Your task to perform on an android device: turn off location history Image 0: 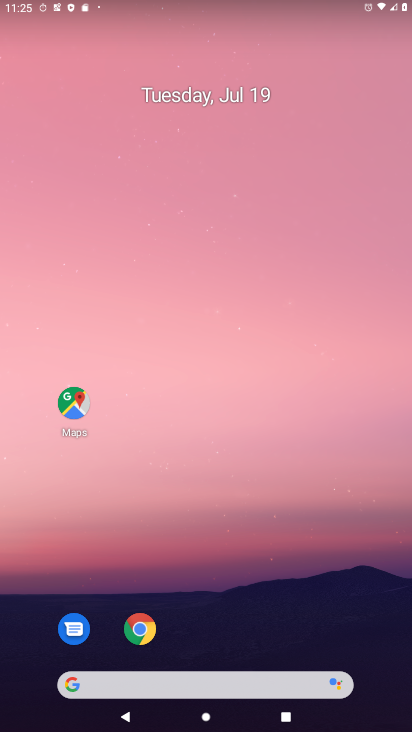
Step 0: drag from (199, 603) to (80, 143)
Your task to perform on an android device: turn off location history Image 1: 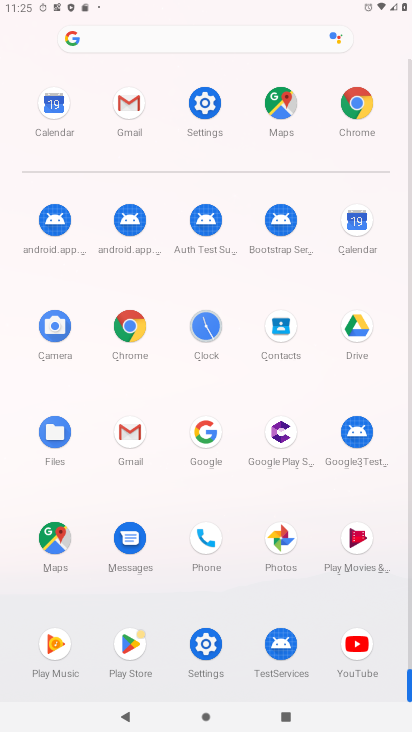
Step 1: click (49, 536)
Your task to perform on an android device: turn off location history Image 2: 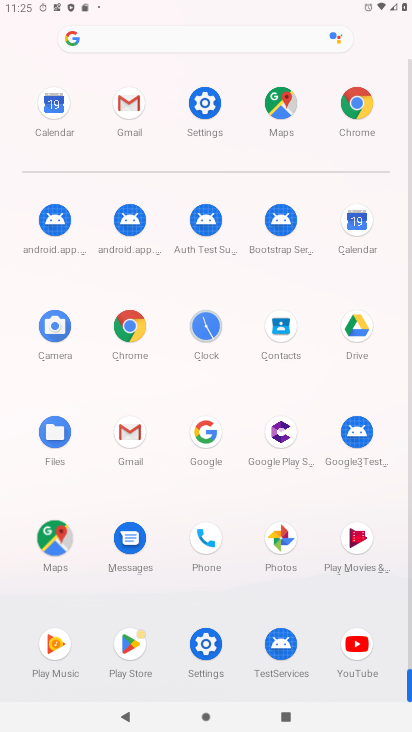
Step 2: click (51, 535)
Your task to perform on an android device: turn off location history Image 3: 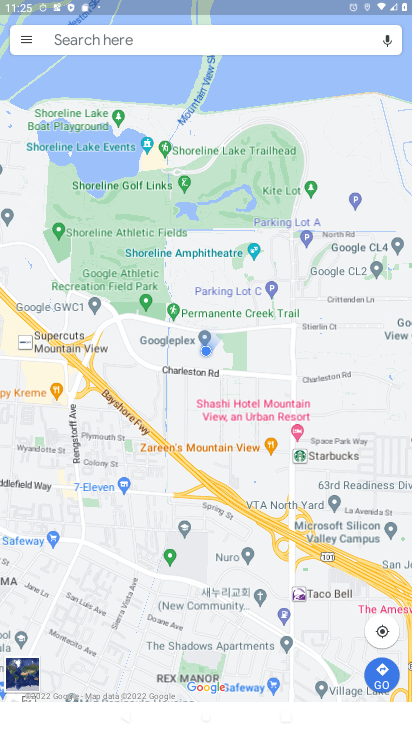
Step 3: press back button
Your task to perform on an android device: turn off location history Image 4: 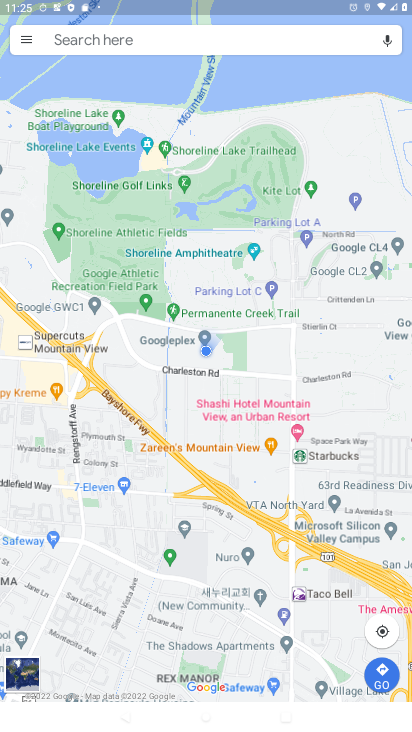
Step 4: press back button
Your task to perform on an android device: turn off location history Image 5: 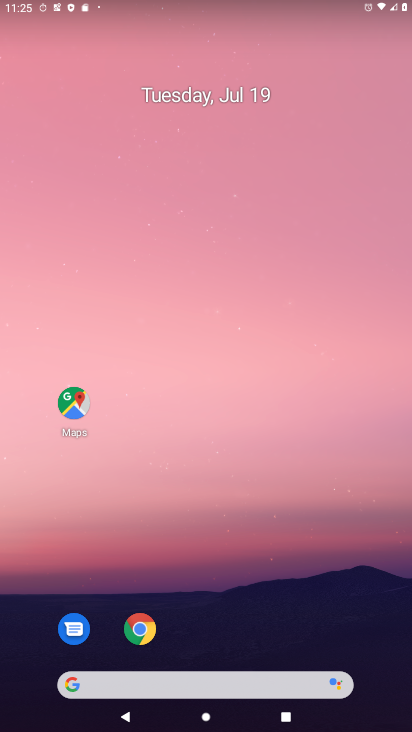
Step 5: drag from (236, 627) to (201, 125)
Your task to perform on an android device: turn off location history Image 6: 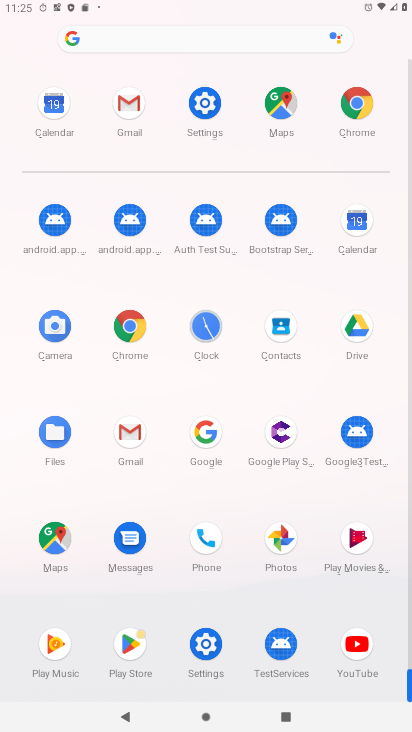
Step 6: click (183, 95)
Your task to perform on an android device: turn off location history Image 7: 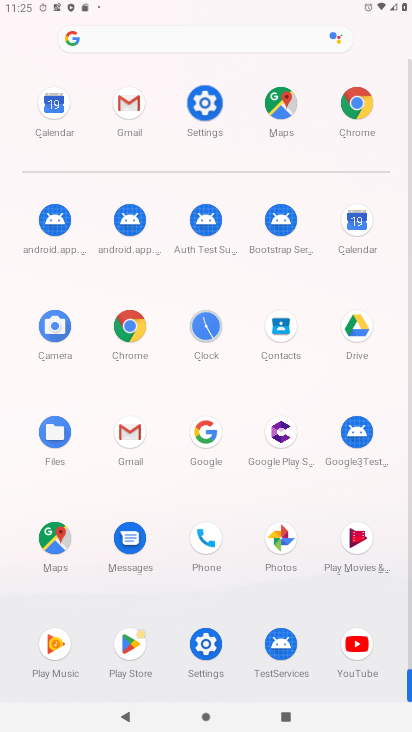
Step 7: click (209, 107)
Your task to perform on an android device: turn off location history Image 8: 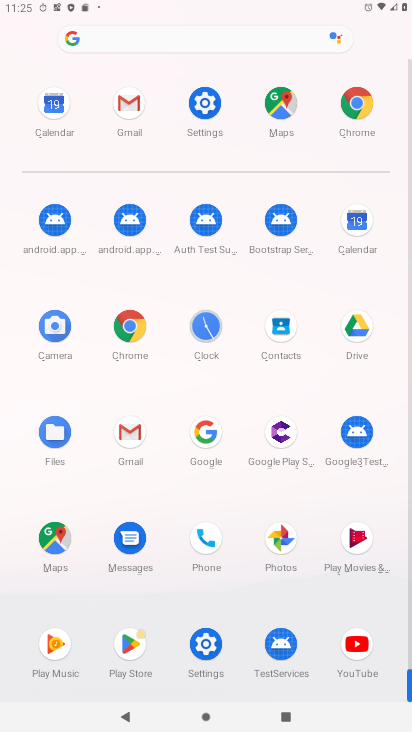
Step 8: click (204, 105)
Your task to perform on an android device: turn off location history Image 9: 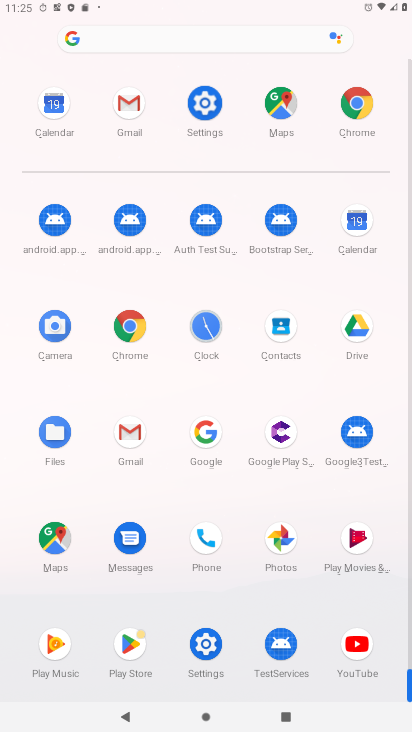
Step 9: click (205, 103)
Your task to perform on an android device: turn off location history Image 10: 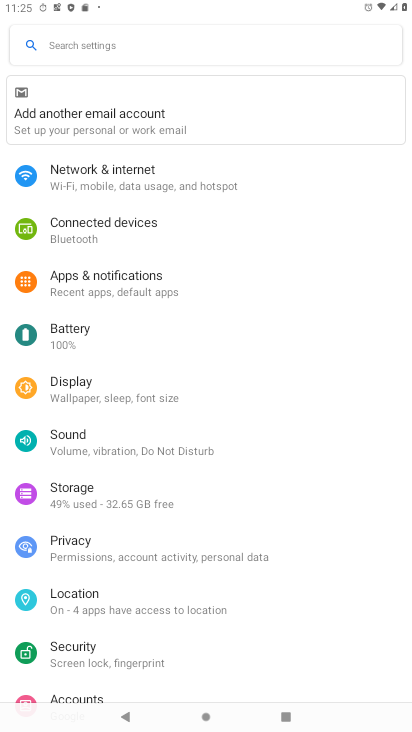
Step 10: drag from (96, 631) to (49, 375)
Your task to perform on an android device: turn off location history Image 11: 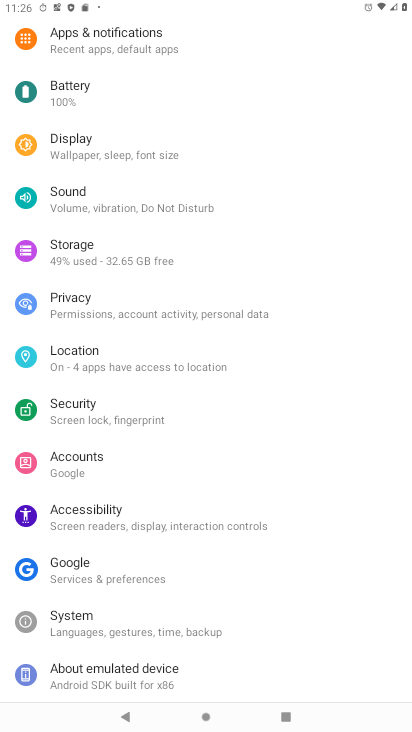
Step 11: click (84, 351)
Your task to perform on an android device: turn off location history Image 12: 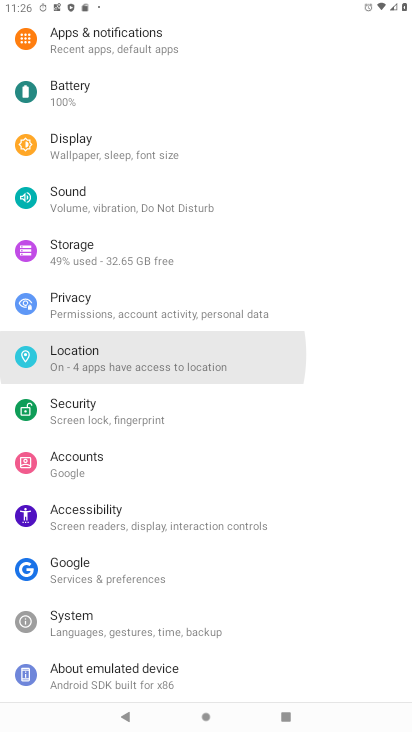
Step 12: click (92, 359)
Your task to perform on an android device: turn off location history Image 13: 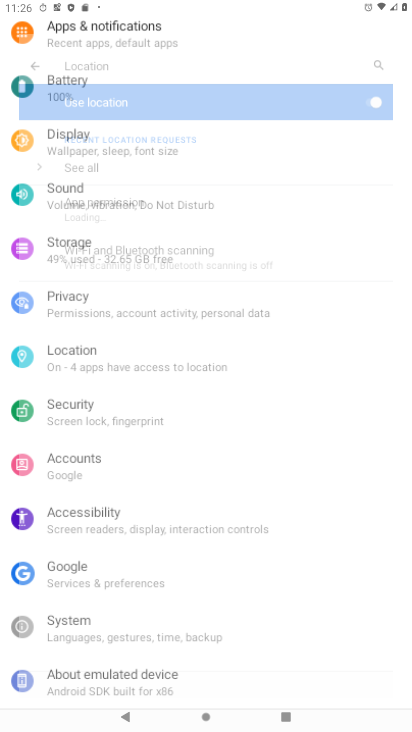
Step 13: click (94, 359)
Your task to perform on an android device: turn off location history Image 14: 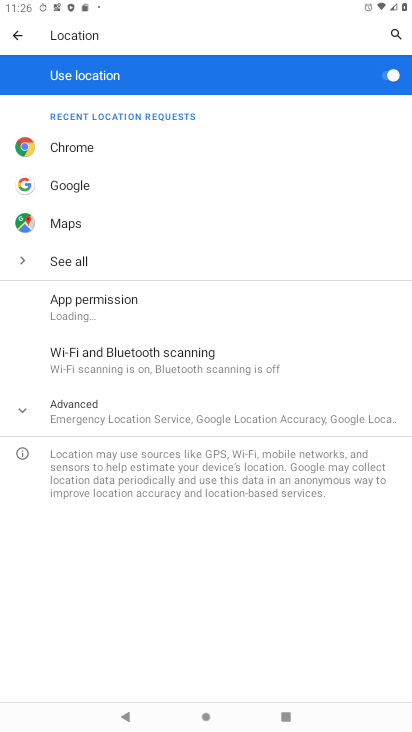
Step 14: click (92, 402)
Your task to perform on an android device: turn off location history Image 15: 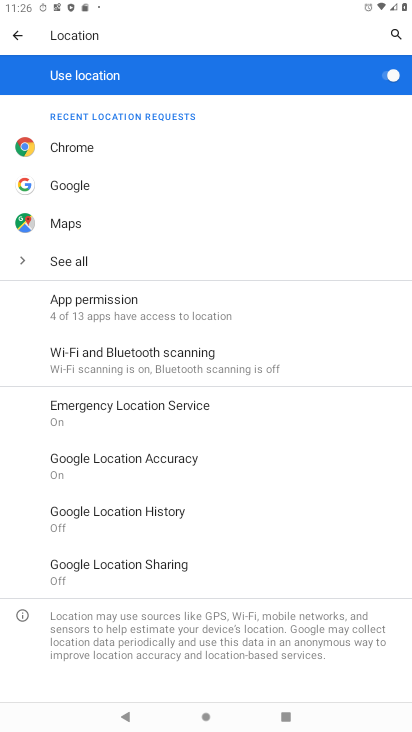
Step 15: click (94, 506)
Your task to perform on an android device: turn off location history Image 16: 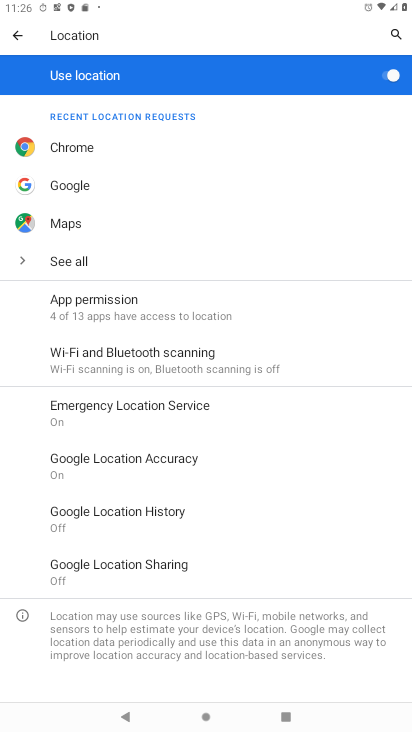
Step 16: click (94, 506)
Your task to perform on an android device: turn off location history Image 17: 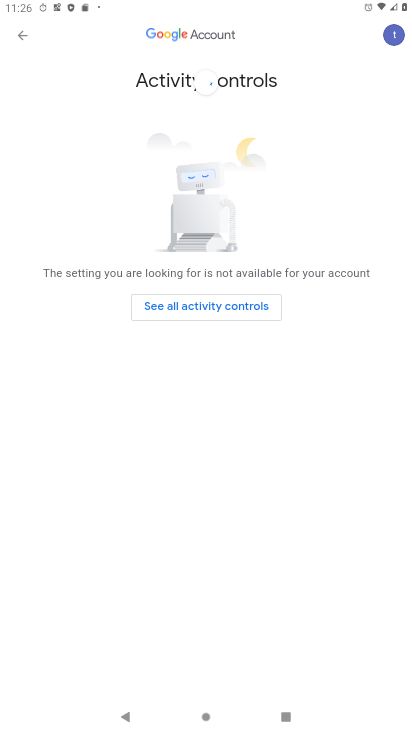
Step 17: click (186, 309)
Your task to perform on an android device: turn off location history Image 18: 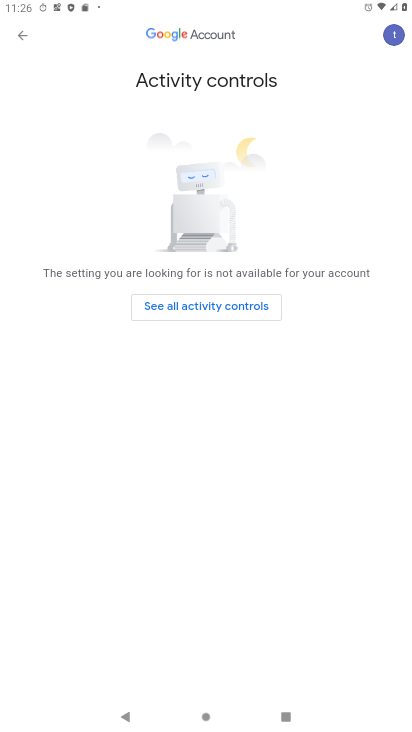
Step 18: click (188, 302)
Your task to perform on an android device: turn off location history Image 19: 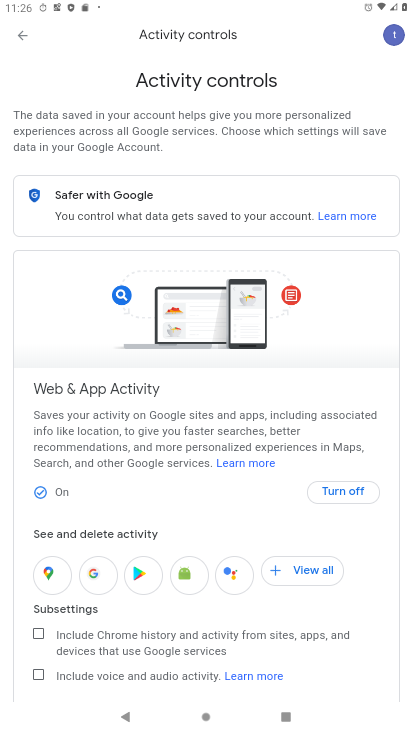
Step 19: click (331, 492)
Your task to perform on an android device: turn off location history Image 20: 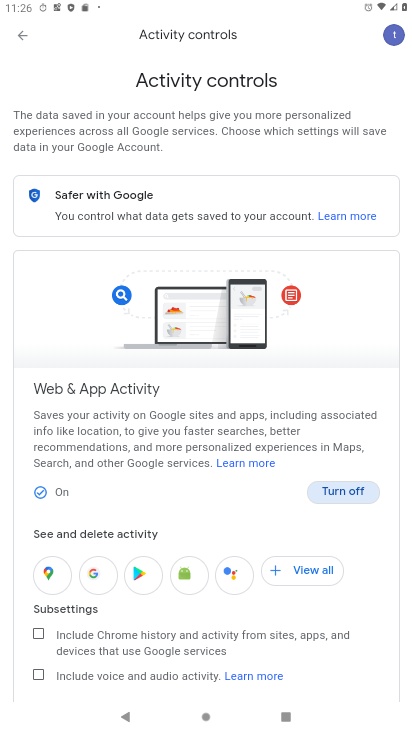
Step 20: click (334, 493)
Your task to perform on an android device: turn off location history Image 21: 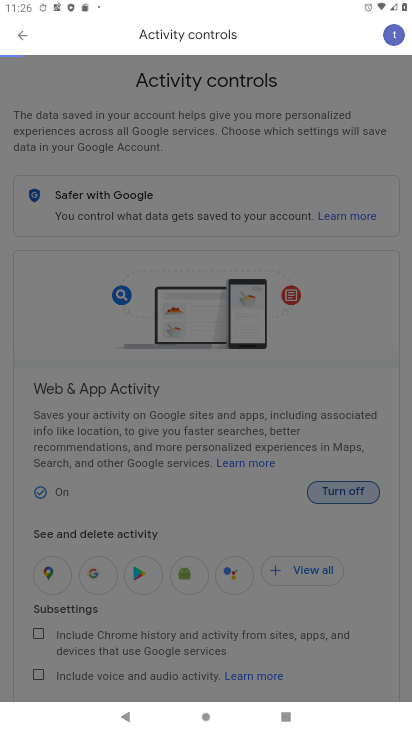
Step 21: click (336, 492)
Your task to perform on an android device: turn off location history Image 22: 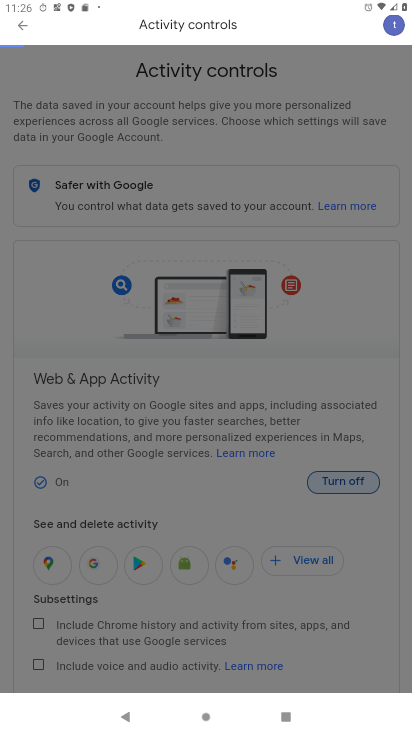
Step 22: click (337, 491)
Your task to perform on an android device: turn off location history Image 23: 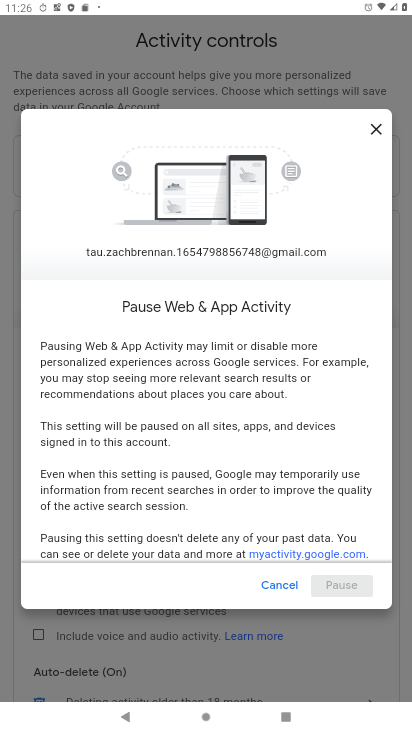
Step 23: task complete